Your task to perform on an android device: Open the stopwatch Image 0: 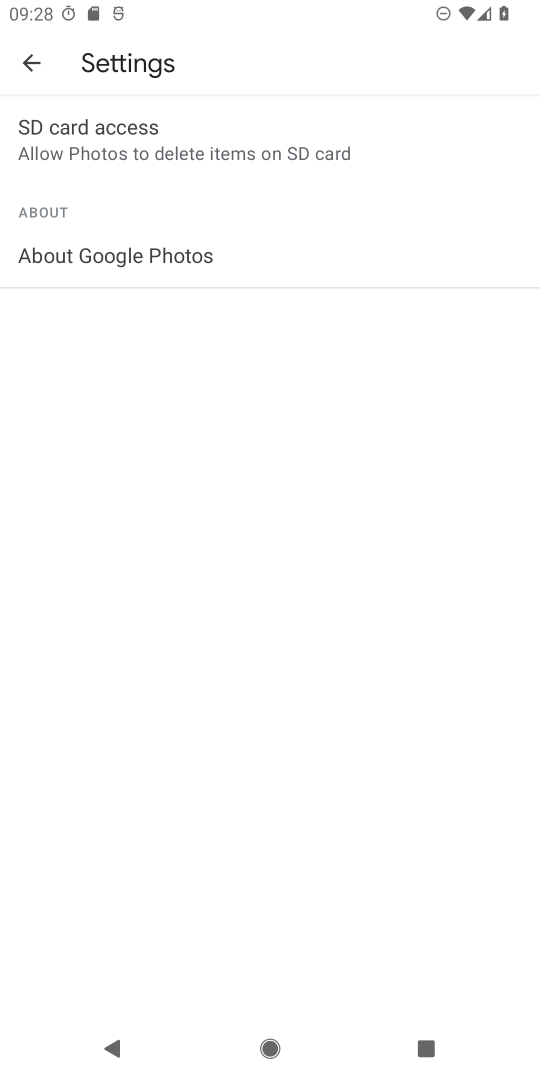
Step 0: press home button
Your task to perform on an android device: Open the stopwatch Image 1: 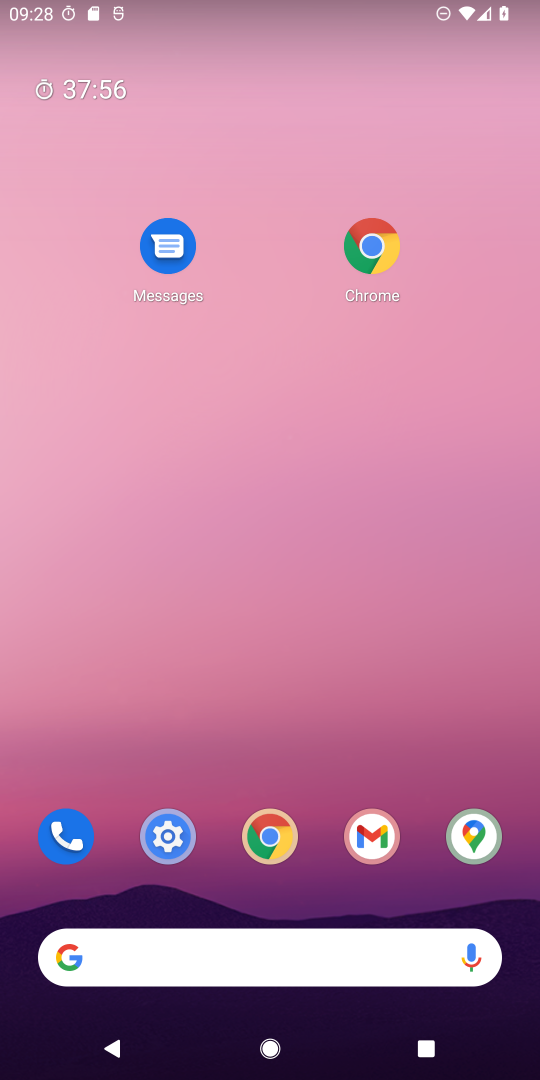
Step 1: drag from (252, 585) to (240, 177)
Your task to perform on an android device: Open the stopwatch Image 2: 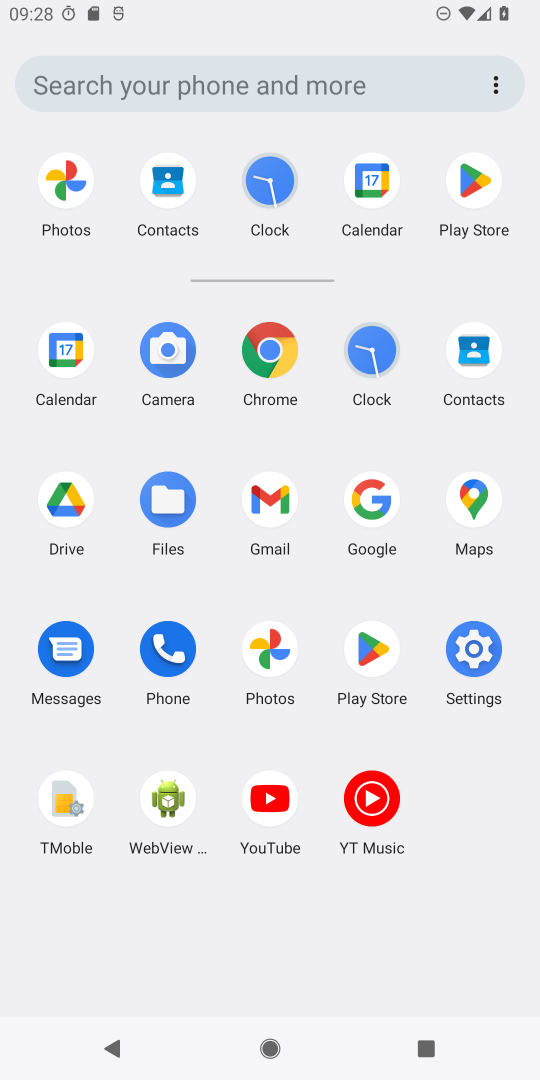
Step 2: click (376, 348)
Your task to perform on an android device: Open the stopwatch Image 3: 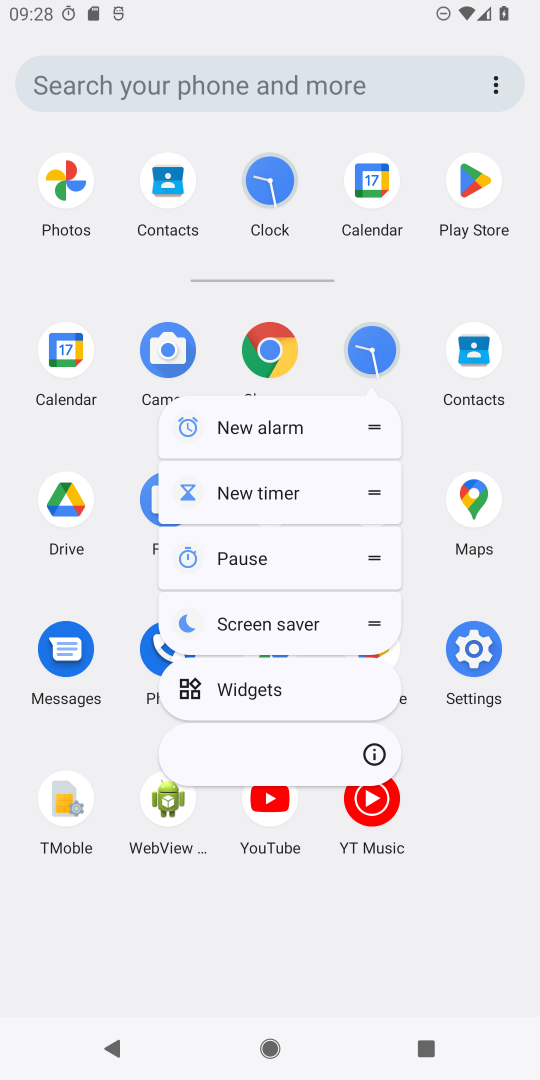
Step 3: click (376, 348)
Your task to perform on an android device: Open the stopwatch Image 4: 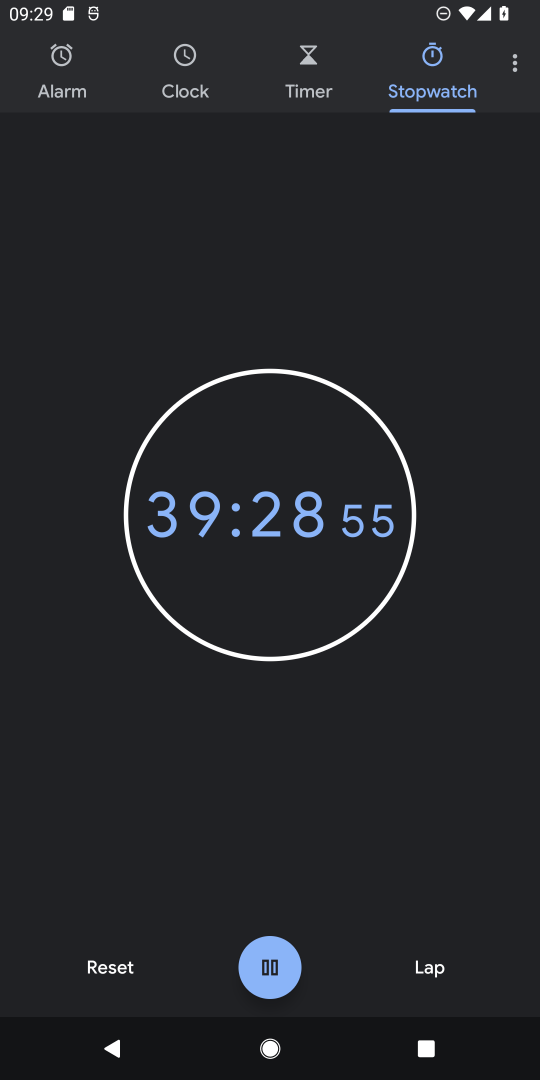
Step 4: task complete